Your task to perform on an android device: check out phone information Image 0: 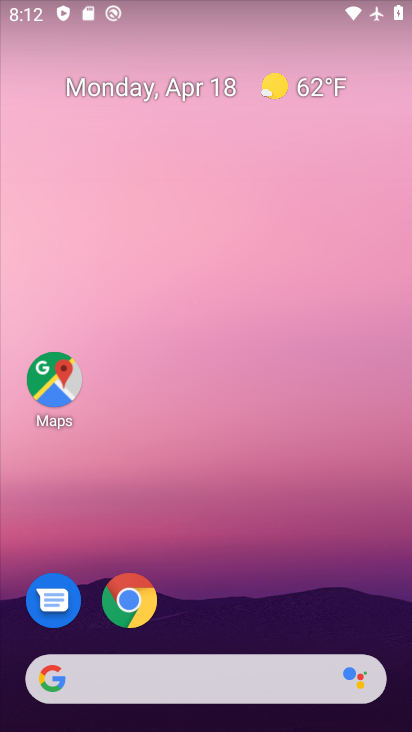
Step 0: drag from (203, 654) to (203, 58)
Your task to perform on an android device: check out phone information Image 1: 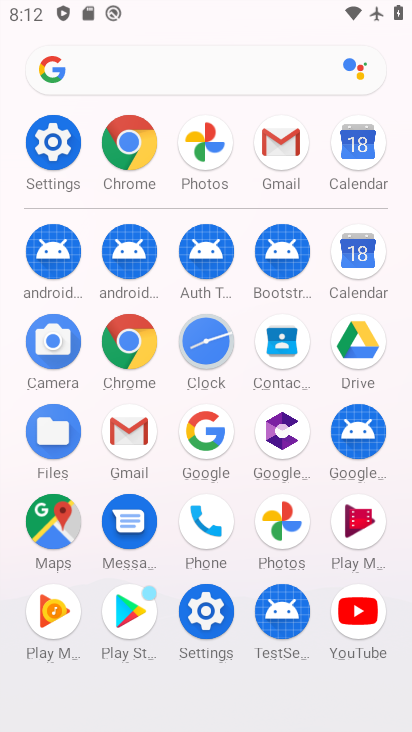
Step 1: click (55, 152)
Your task to perform on an android device: check out phone information Image 2: 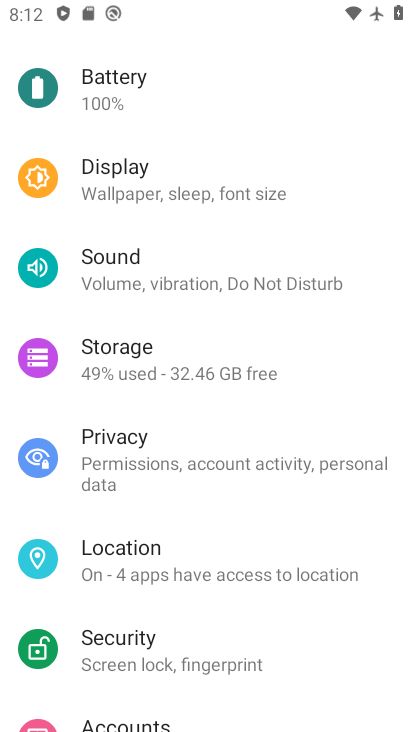
Step 2: drag from (200, 590) to (141, 153)
Your task to perform on an android device: check out phone information Image 3: 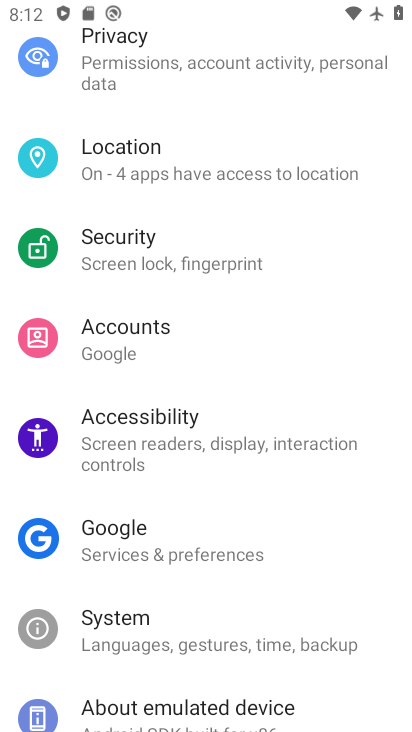
Step 3: drag from (212, 613) to (175, 169)
Your task to perform on an android device: check out phone information Image 4: 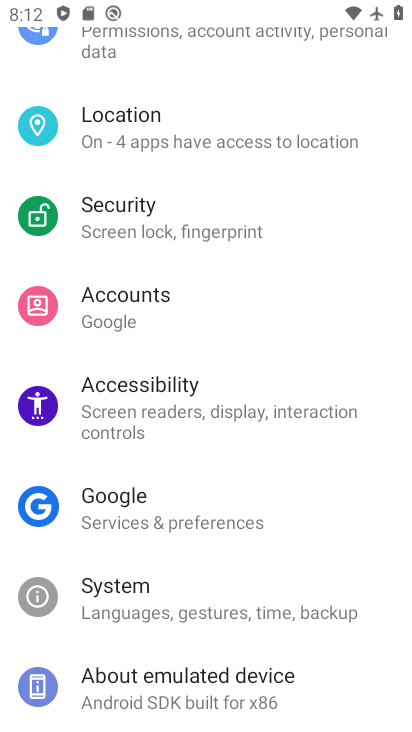
Step 4: click (155, 674)
Your task to perform on an android device: check out phone information Image 5: 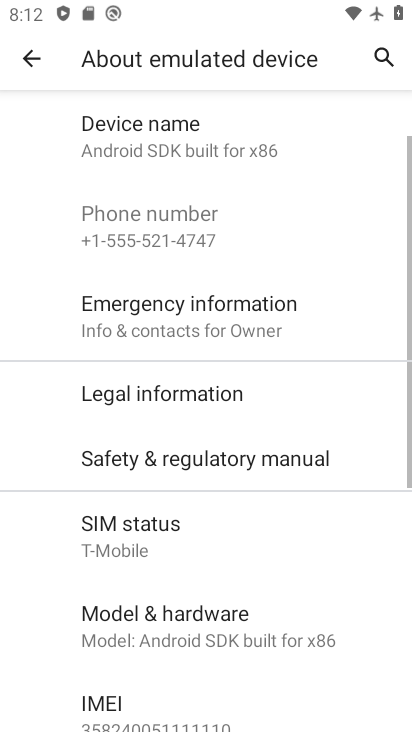
Step 5: drag from (179, 507) to (181, 197)
Your task to perform on an android device: check out phone information Image 6: 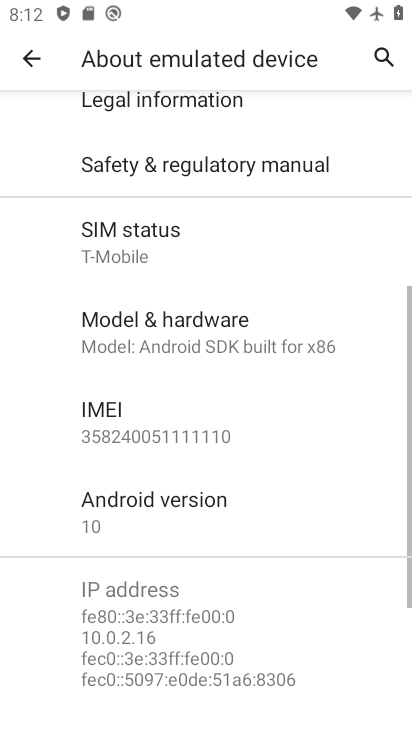
Step 6: drag from (189, 587) to (201, 290)
Your task to perform on an android device: check out phone information Image 7: 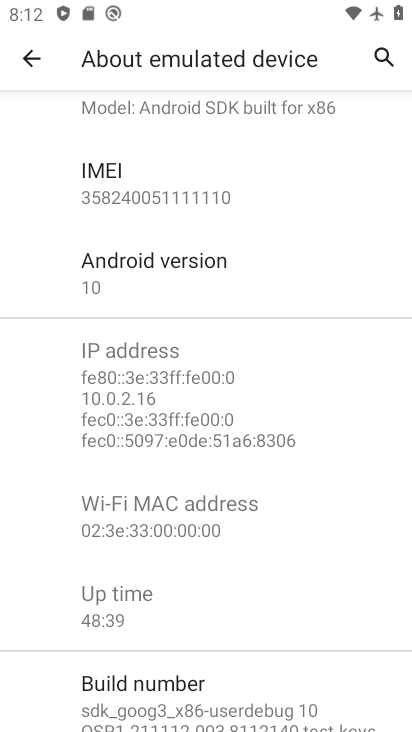
Step 7: click (136, 117)
Your task to perform on an android device: check out phone information Image 8: 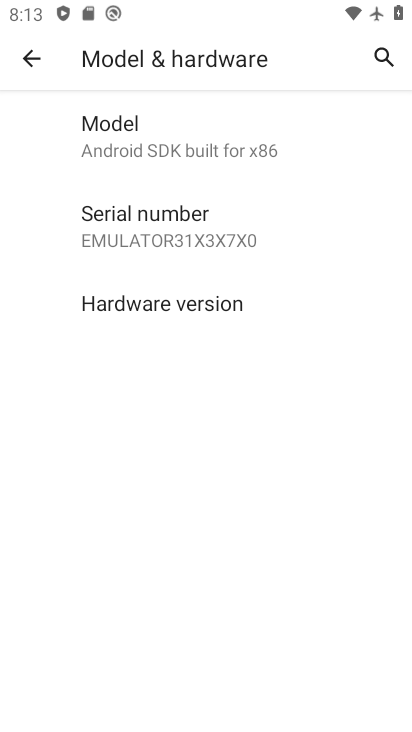
Step 8: task complete